Your task to perform on an android device: change alarm snooze length Image 0: 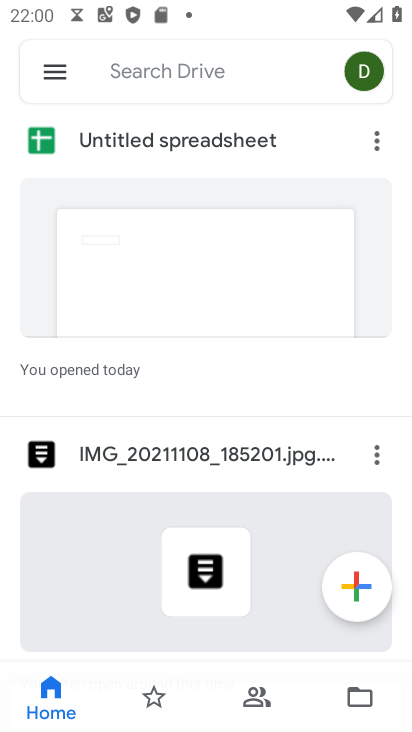
Step 0: press home button
Your task to perform on an android device: change alarm snooze length Image 1: 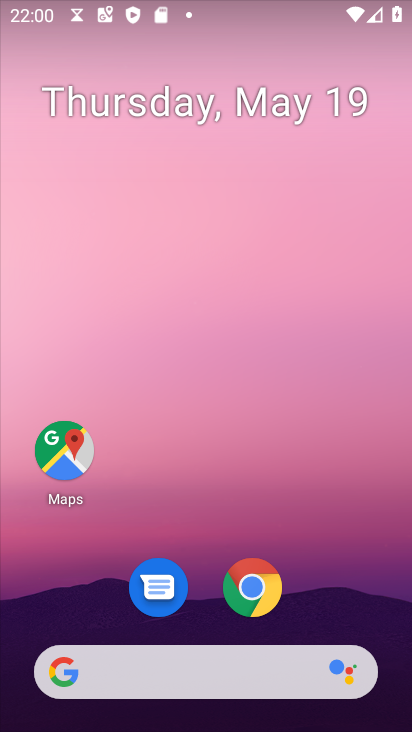
Step 1: drag from (196, 653) to (149, 134)
Your task to perform on an android device: change alarm snooze length Image 2: 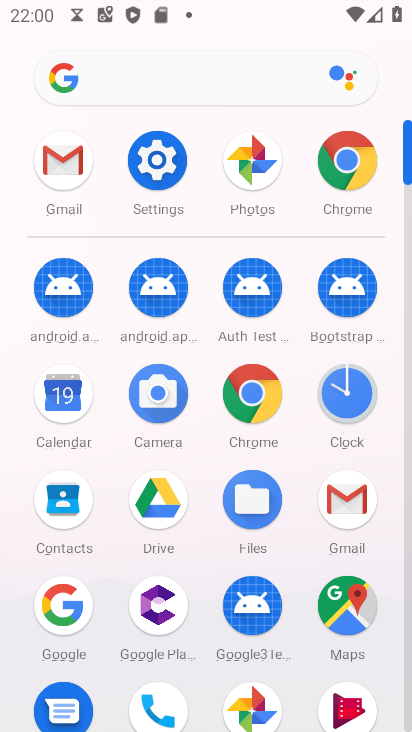
Step 2: click (331, 391)
Your task to perform on an android device: change alarm snooze length Image 3: 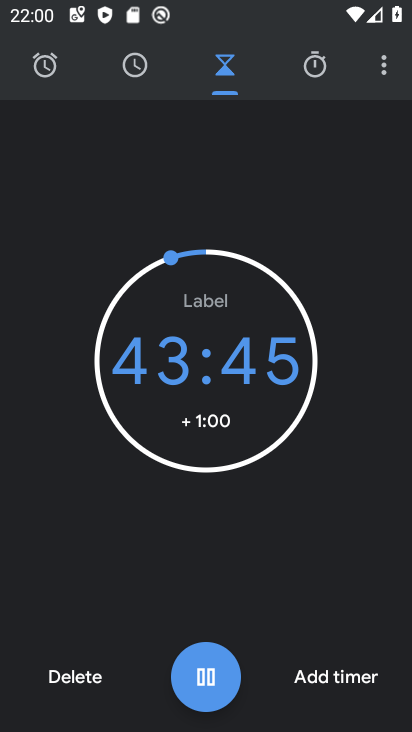
Step 3: click (381, 70)
Your task to perform on an android device: change alarm snooze length Image 4: 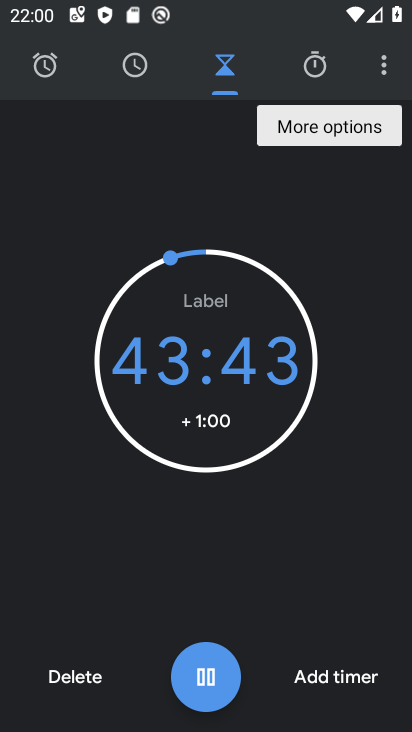
Step 4: click (381, 70)
Your task to perform on an android device: change alarm snooze length Image 5: 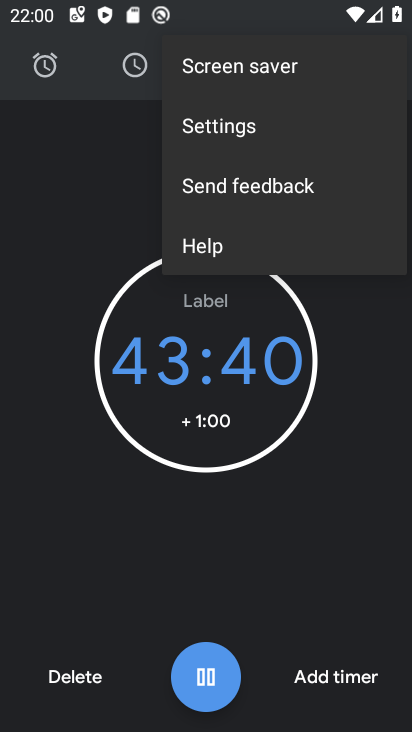
Step 5: click (229, 136)
Your task to perform on an android device: change alarm snooze length Image 6: 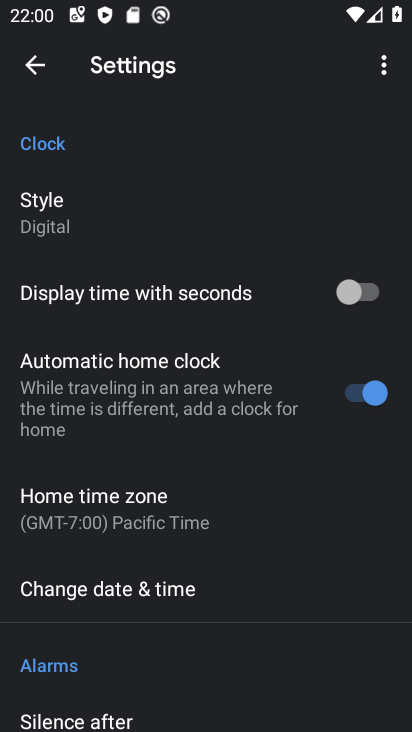
Step 6: drag from (120, 579) to (128, 16)
Your task to perform on an android device: change alarm snooze length Image 7: 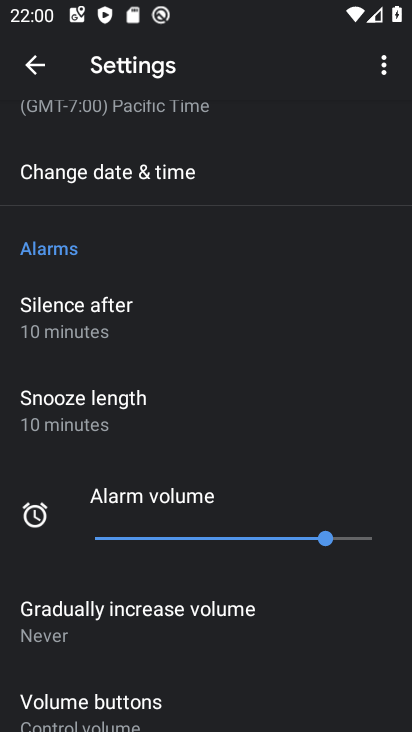
Step 7: click (85, 431)
Your task to perform on an android device: change alarm snooze length Image 8: 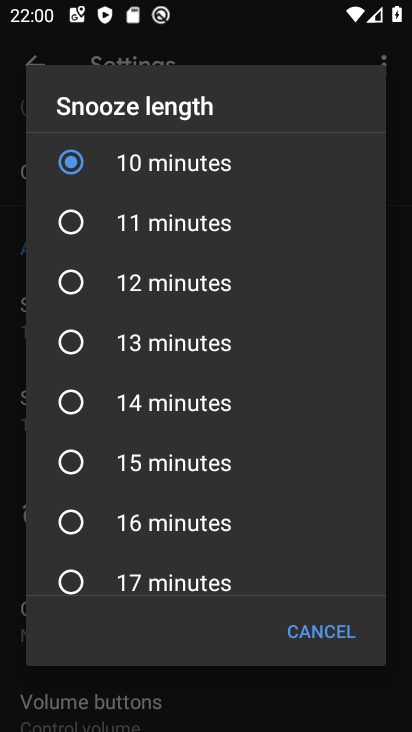
Step 8: click (74, 574)
Your task to perform on an android device: change alarm snooze length Image 9: 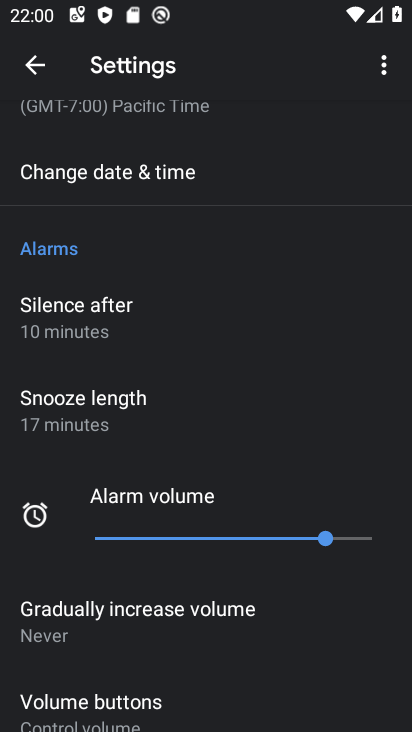
Step 9: task complete